Your task to perform on an android device: What's on my calendar today? Image 0: 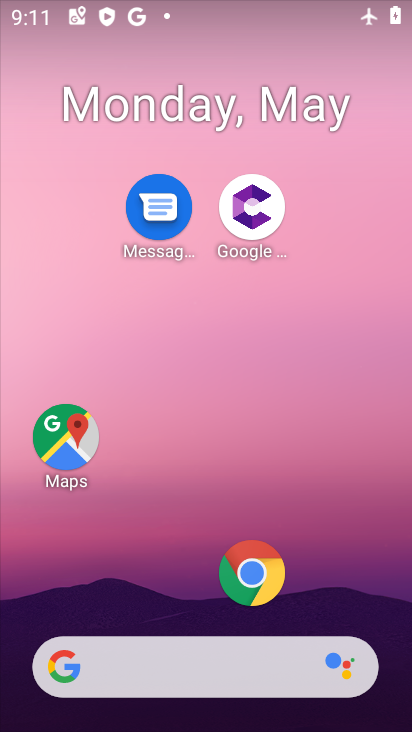
Step 0: drag from (310, 628) to (323, 87)
Your task to perform on an android device: What's on my calendar today? Image 1: 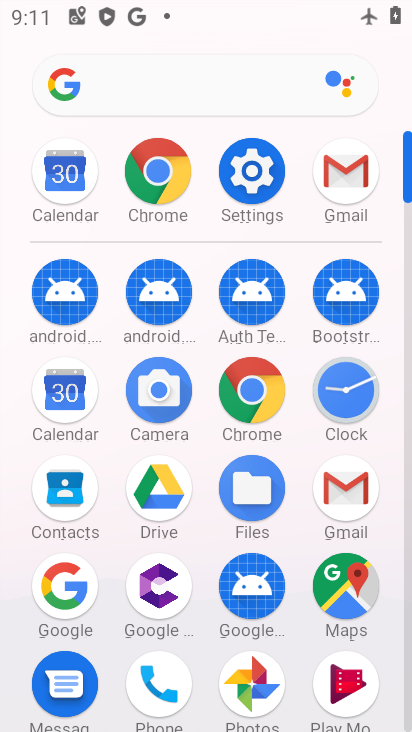
Step 1: click (72, 209)
Your task to perform on an android device: What's on my calendar today? Image 2: 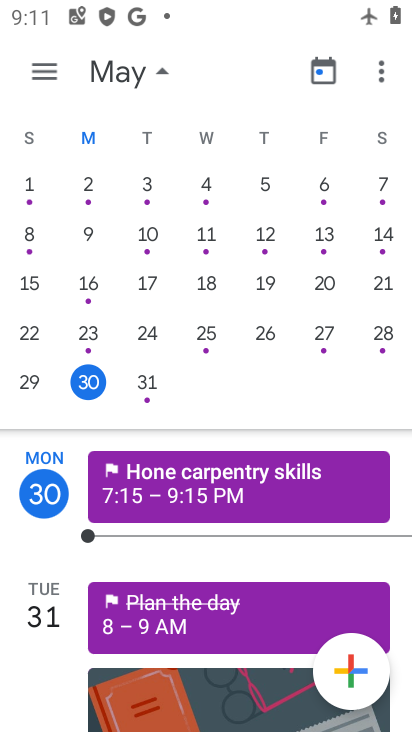
Step 2: click (89, 375)
Your task to perform on an android device: What's on my calendar today? Image 3: 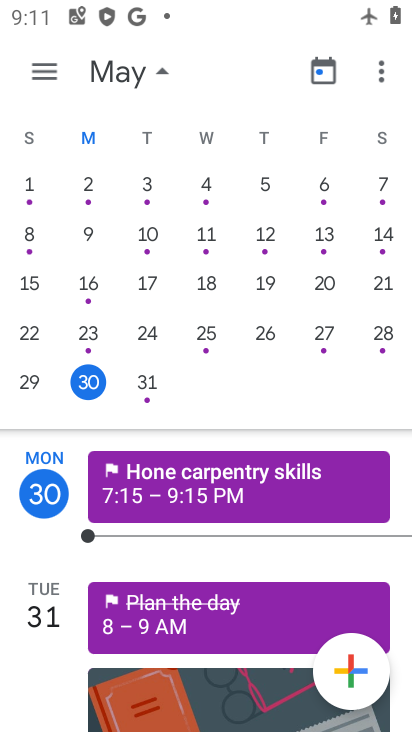
Step 3: task complete